Your task to perform on an android device: Go to accessibility settings Image 0: 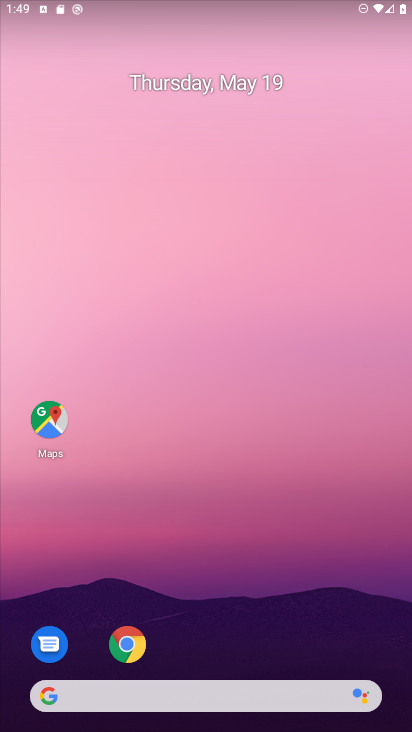
Step 0: drag from (367, 583) to (320, 236)
Your task to perform on an android device: Go to accessibility settings Image 1: 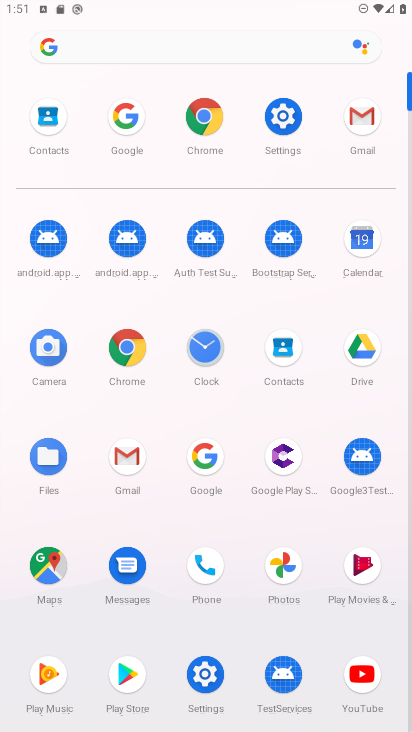
Step 1: click (214, 694)
Your task to perform on an android device: Go to accessibility settings Image 2: 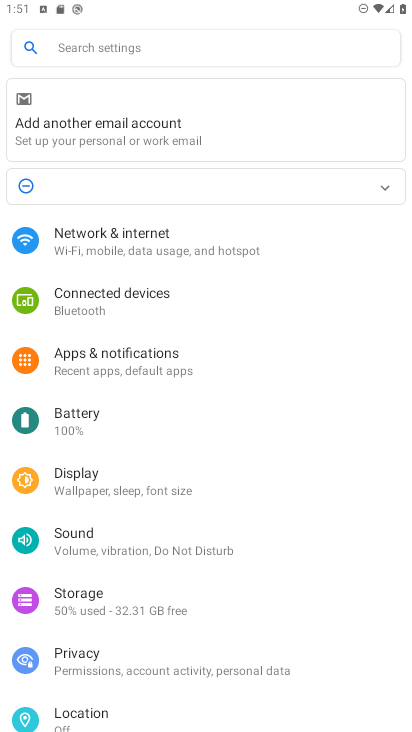
Step 2: drag from (150, 653) to (120, 238)
Your task to perform on an android device: Go to accessibility settings Image 3: 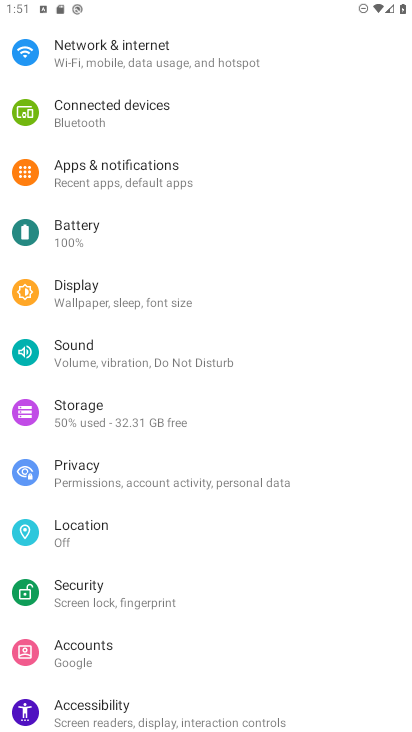
Step 3: click (102, 706)
Your task to perform on an android device: Go to accessibility settings Image 4: 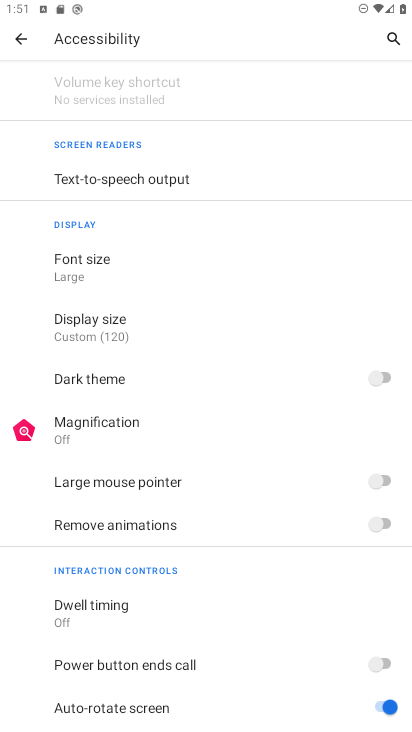
Step 4: task complete